Your task to perform on an android device: What's the weather today? Image 0: 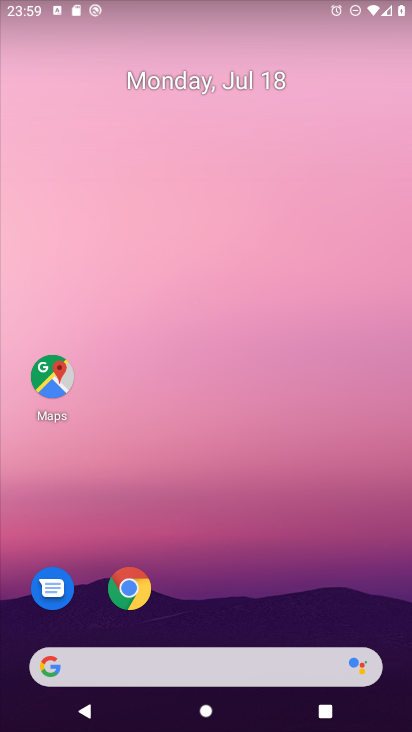
Step 0: drag from (13, 221) to (399, 276)
Your task to perform on an android device: What's the weather today? Image 1: 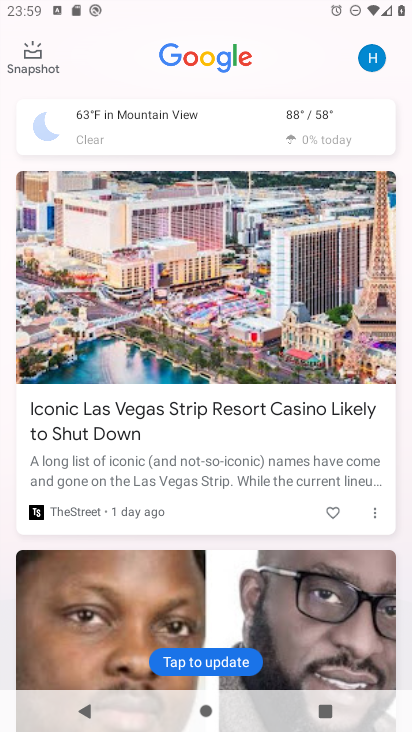
Step 1: click (292, 122)
Your task to perform on an android device: What's the weather today? Image 2: 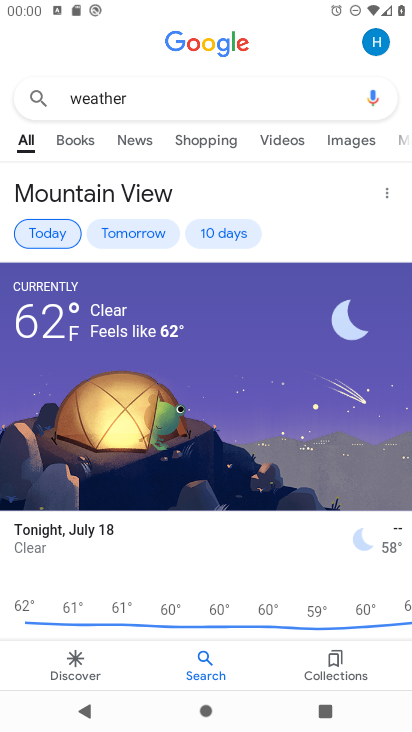
Step 2: task complete